Your task to perform on an android device: Search for sushi restaurants on Maps Image 0: 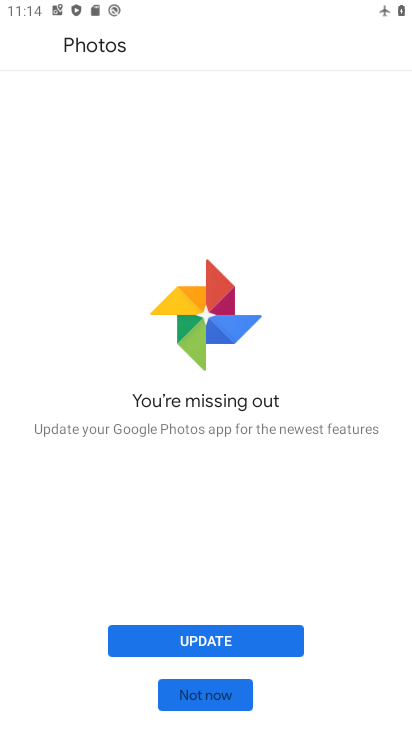
Step 0: press home button
Your task to perform on an android device: Search for sushi restaurants on Maps Image 1: 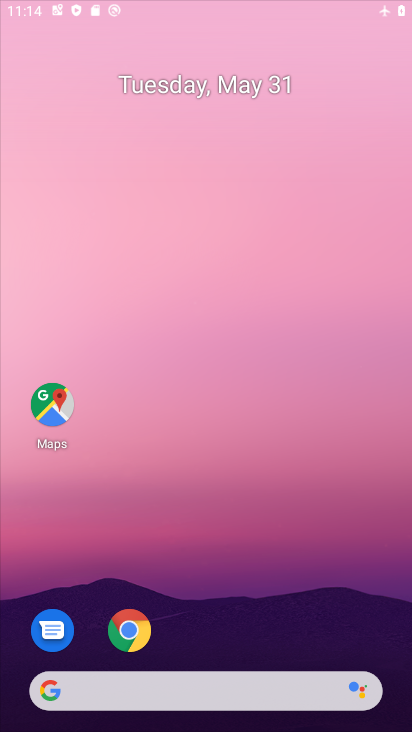
Step 1: drag from (213, 650) to (226, 221)
Your task to perform on an android device: Search for sushi restaurants on Maps Image 2: 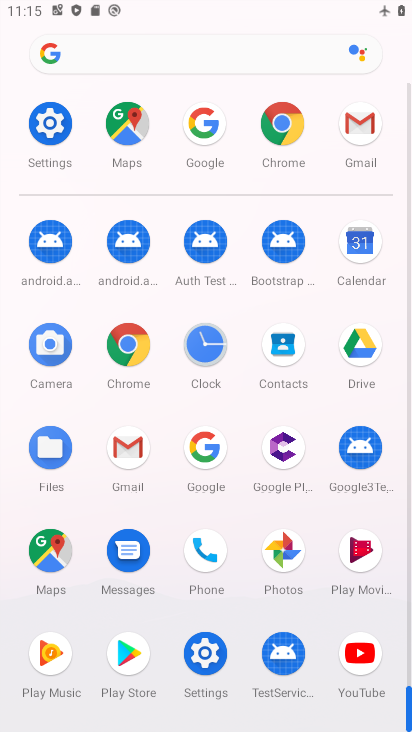
Step 2: click (54, 561)
Your task to perform on an android device: Search for sushi restaurants on Maps Image 3: 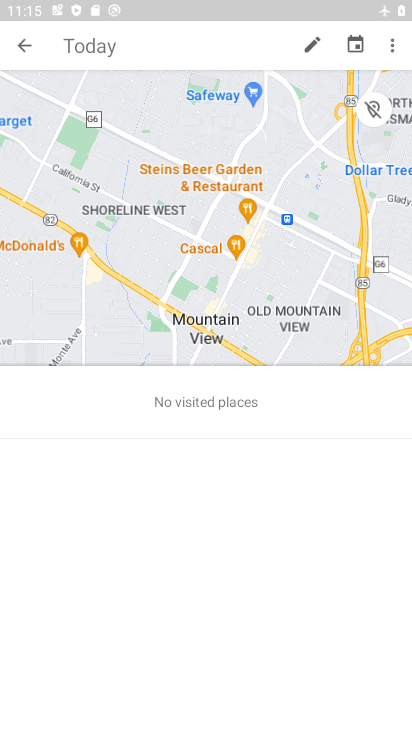
Step 3: click (23, 50)
Your task to perform on an android device: Search for sushi restaurants on Maps Image 4: 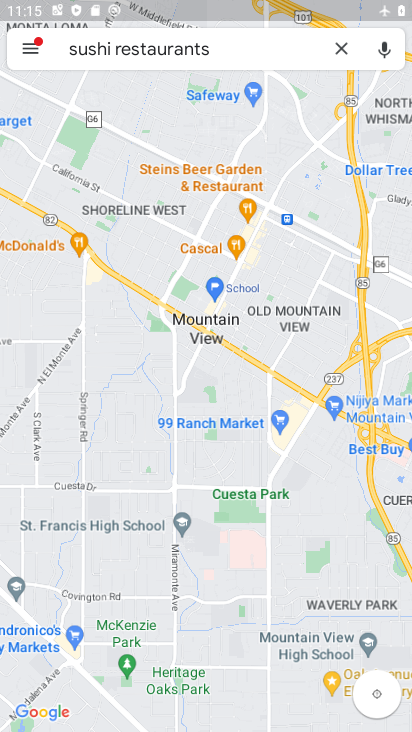
Step 4: task complete